Your task to perform on an android device: visit the assistant section in the google photos Image 0: 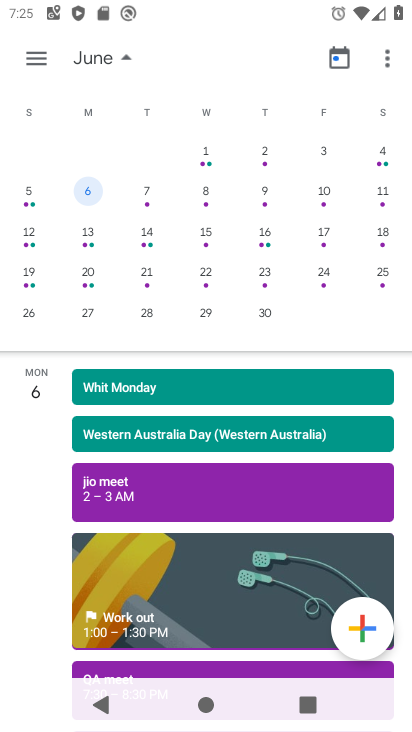
Step 0: press home button
Your task to perform on an android device: visit the assistant section in the google photos Image 1: 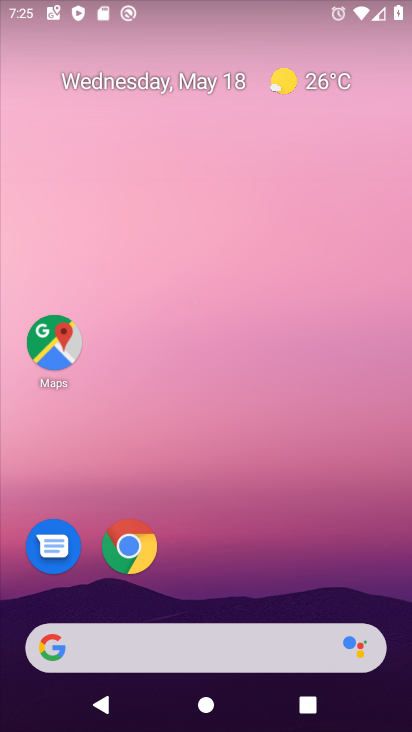
Step 1: drag from (356, 583) to (373, 3)
Your task to perform on an android device: visit the assistant section in the google photos Image 2: 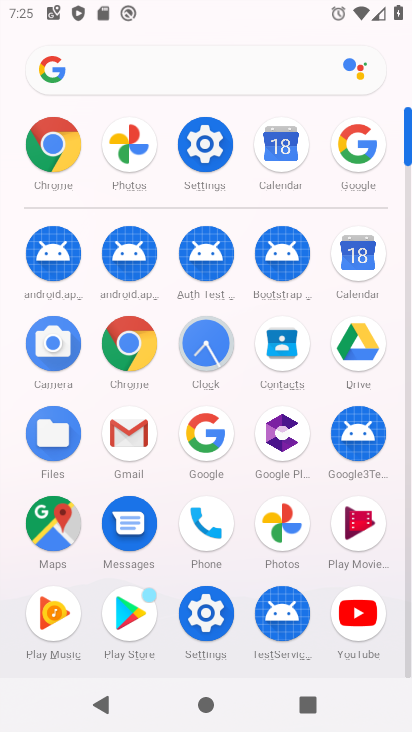
Step 2: click (278, 535)
Your task to perform on an android device: visit the assistant section in the google photos Image 3: 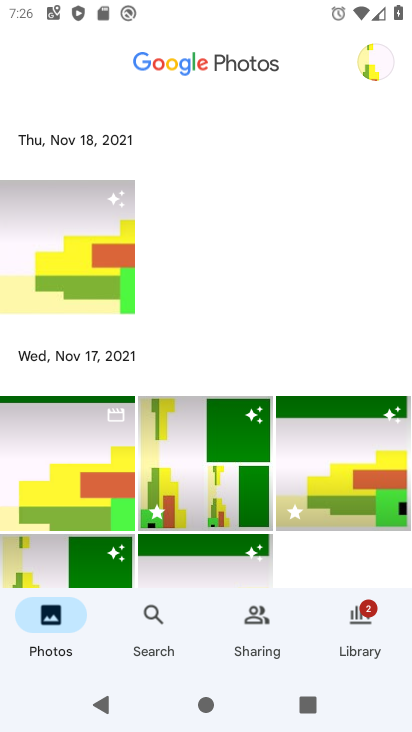
Step 3: task complete